Your task to perform on an android device: Go to internet settings Image 0: 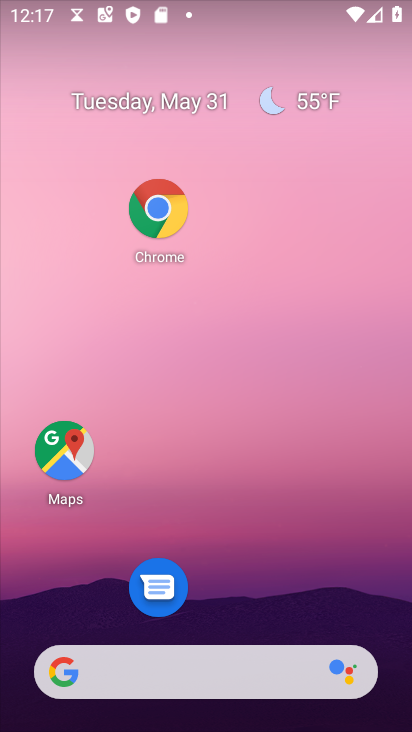
Step 0: drag from (335, 617) to (281, 109)
Your task to perform on an android device: Go to internet settings Image 1: 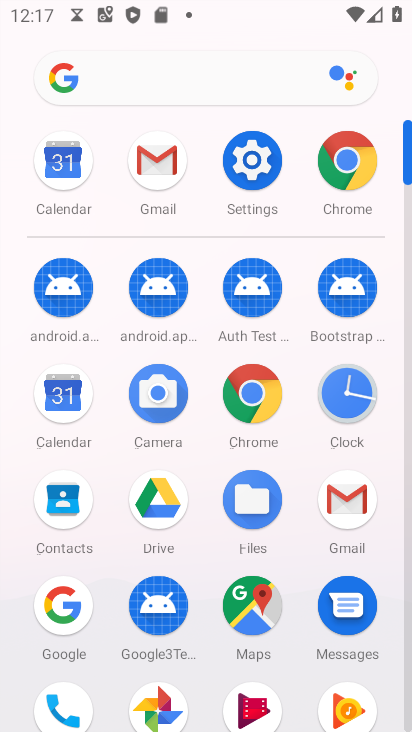
Step 1: click (235, 154)
Your task to perform on an android device: Go to internet settings Image 2: 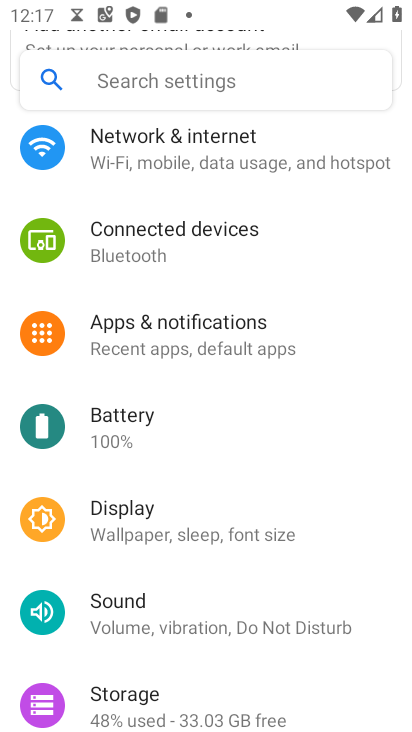
Step 2: click (225, 163)
Your task to perform on an android device: Go to internet settings Image 3: 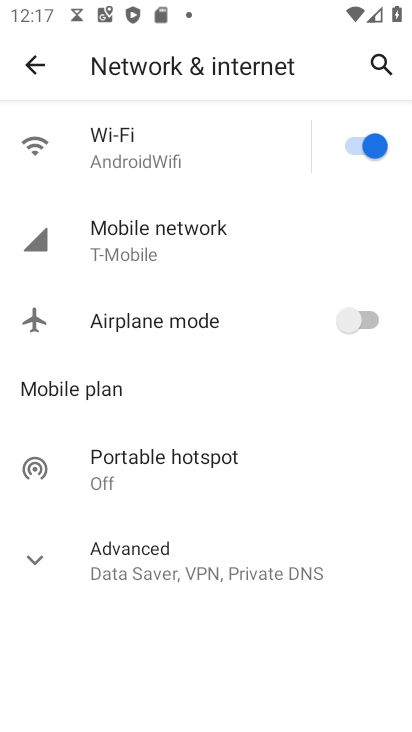
Step 3: task complete